Your task to perform on an android device: find photos in the google photos app Image 0: 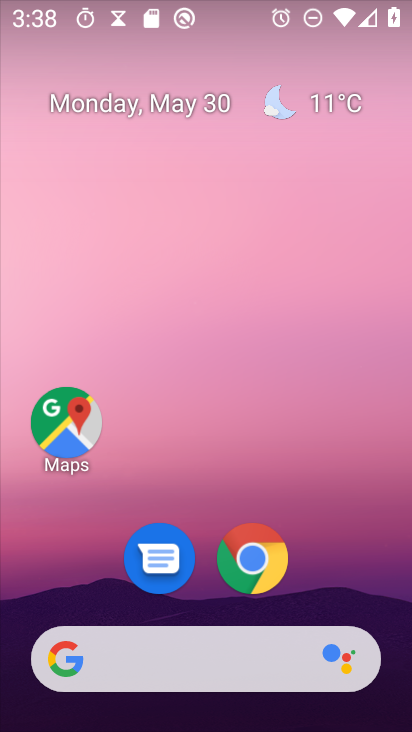
Step 0: drag from (194, 460) to (249, 19)
Your task to perform on an android device: find photos in the google photos app Image 1: 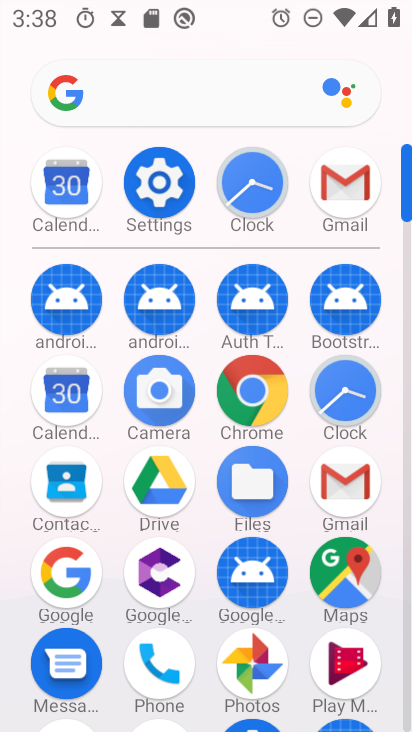
Step 1: click (254, 680)
Your task to perform on an android device: find photos in the google photos app Image 2: 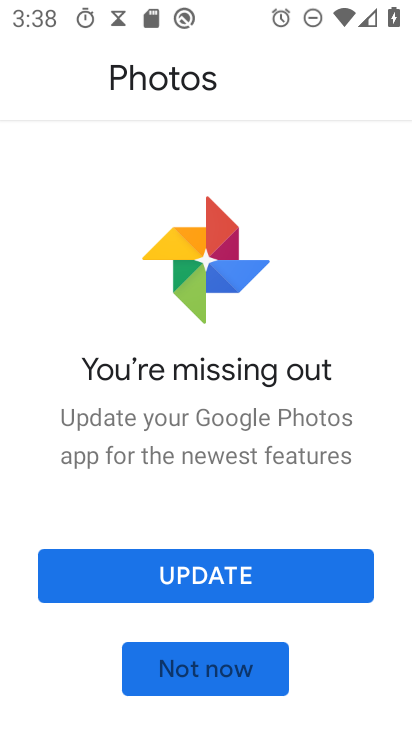
Step 2: click (216, 676)
Your task to perform on an android device: find photos in the google photos app Image 3: 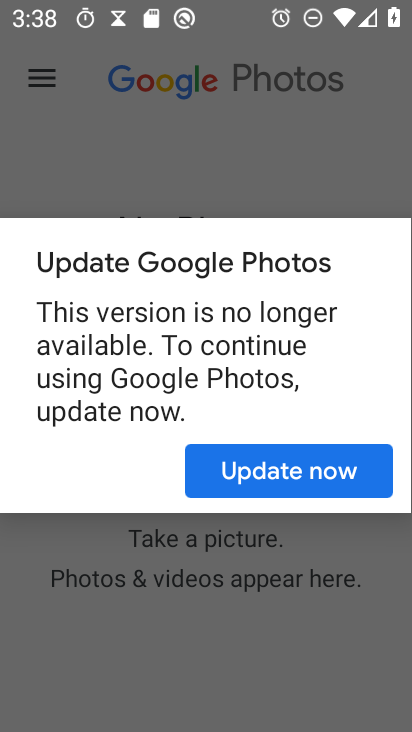
Step 3: click (252, 467)
Your task to perform on an android device: find photos in the google photos app Image 4: 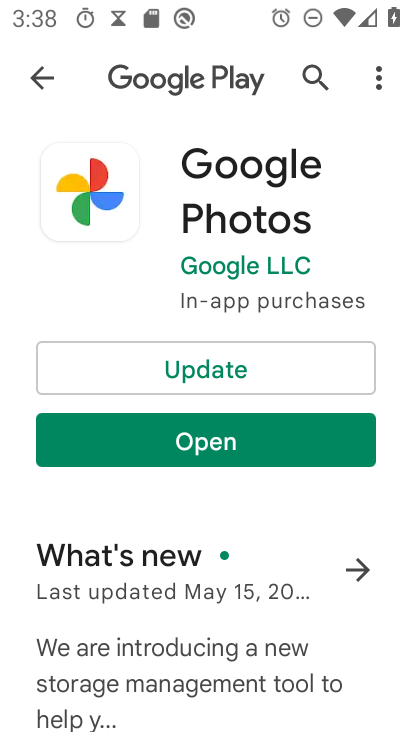
Step 4: click (216, 440)
Your task to perform on an android device: find photos in the google photos app Image 5: 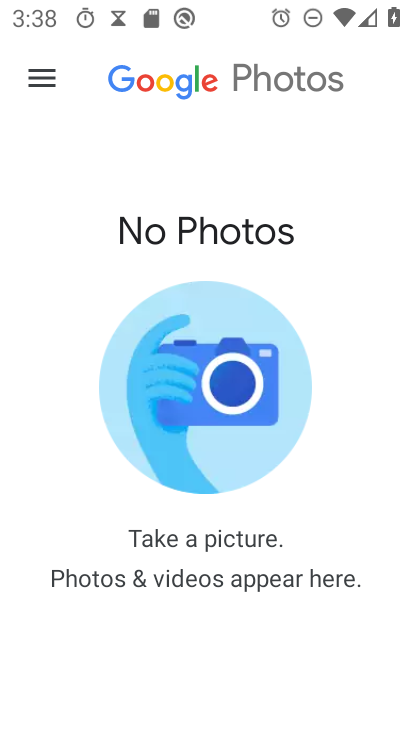
Step 5: task complete